Your task to perform on an android device: allow cookies in the chrome app Image 0: 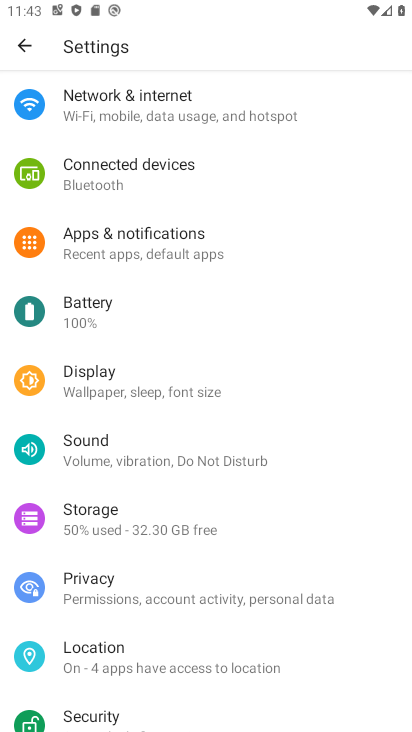
Step 0: press home button
Your task to perform on an android device: allow cookies in the chrome app Image 1: 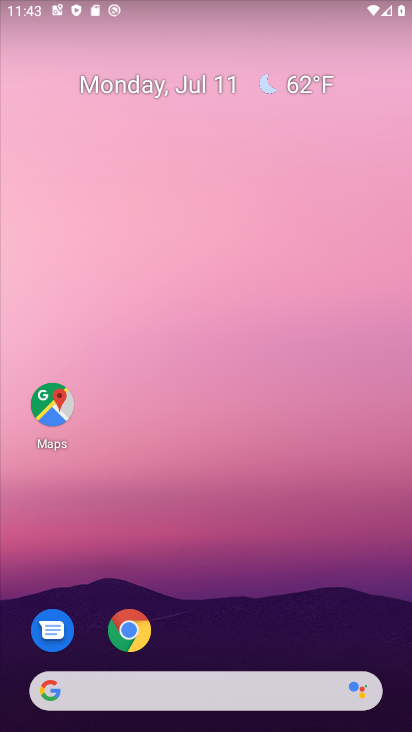
Step 1: drag from (204, 643) to (370, 88)
Your task to perform on an android device: allow cookies in the chrome app Image 2: 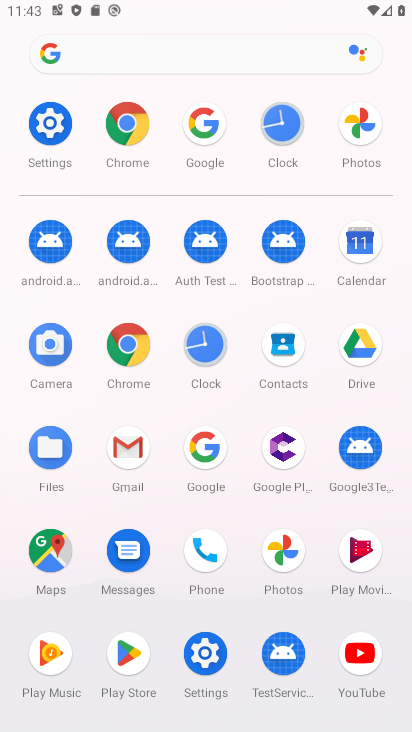
Step 2: click (138, 341)
Your task to perform on an android device: allow cookies in the chrome app Image 3: 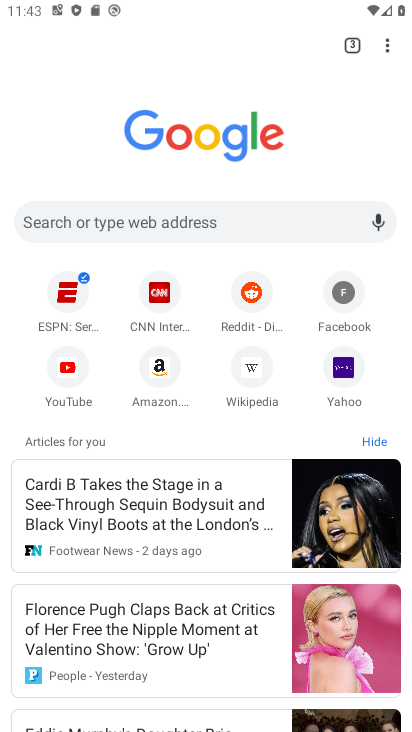
Step 3: drag from (391, 31) to (247, 382)
Your task to perform on an android device: allow cookies in the chrome app Image 4: 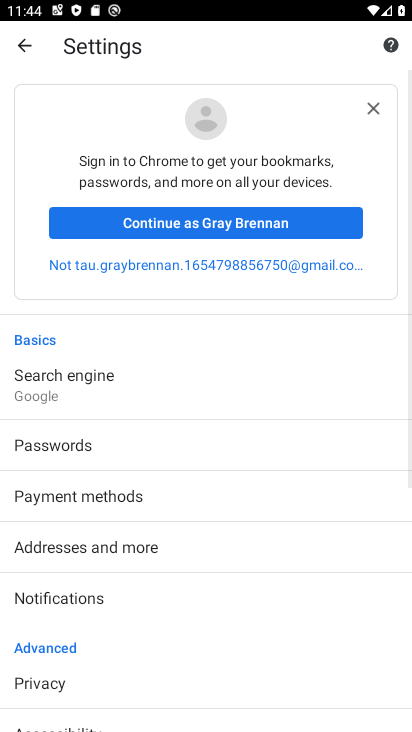
Step 4: drag from (97, 651) to (184, 253)
Your task to perform on an android device: allow cookies in the chrome app Image 5: 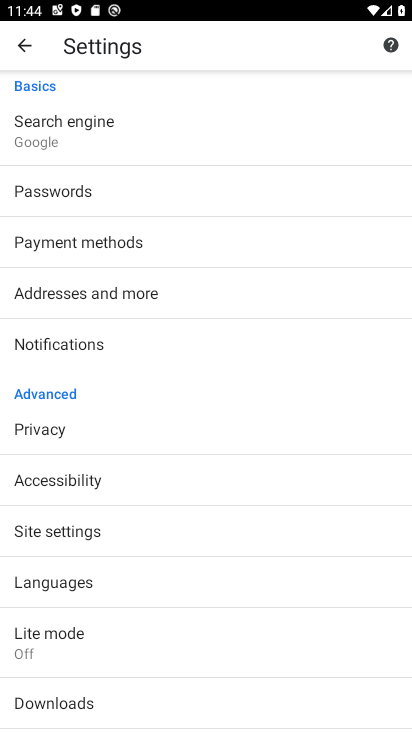
Step 5: click (63, 526)
Your task to perform on an android device: allow cookies in the chrome app Image 6: 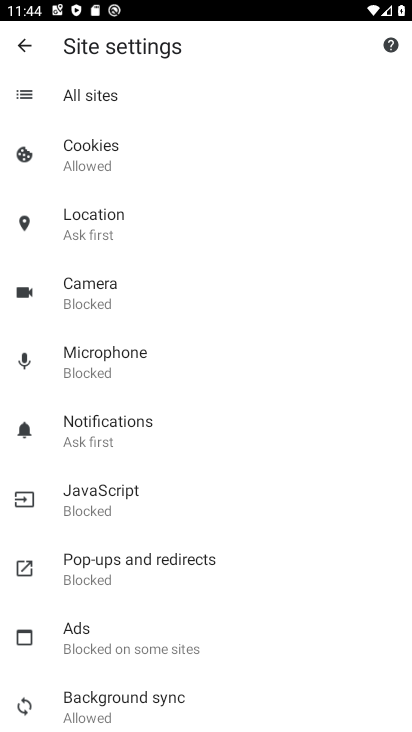
Step 6: click (117, 154)
Your task to perform on an android device: allow cookies in the chrome app Image 7: 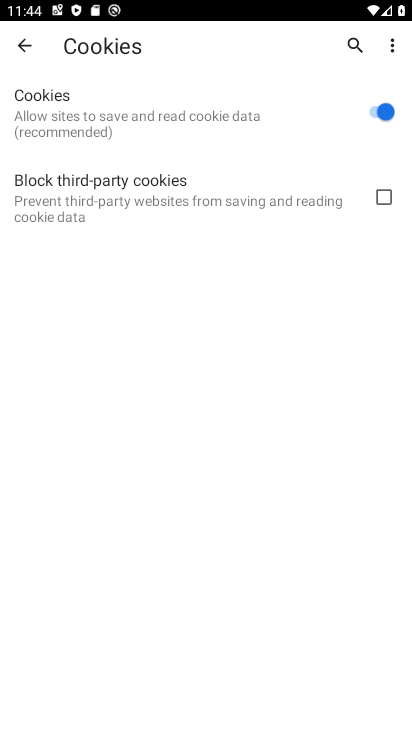
Step 7: task complete